Your task to perform on an android device: remove spam from my inbox in the gmail app Image 0: 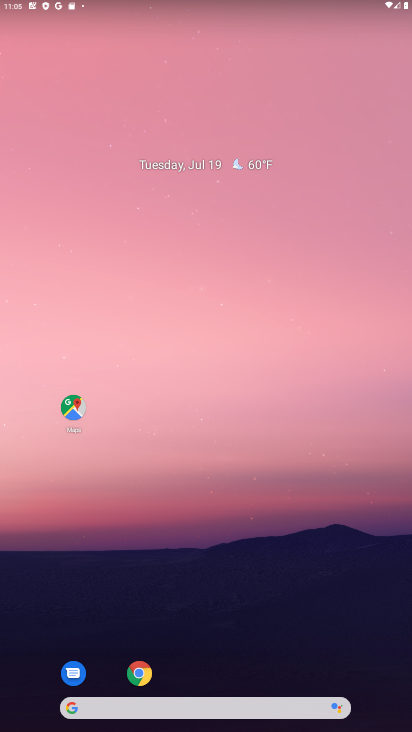
Step 0: drag from (386, 674) to (331, 126)
Your task to perform on an android device: remove spam from my inbox in the gmail app Image 1: 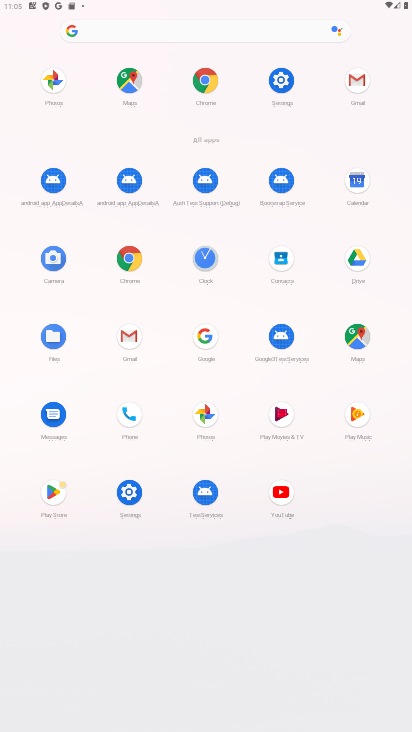
Step 1: click (129, 338)
Your task to perform on an android device: remove spam from my inbox in the gmail app Image 2: 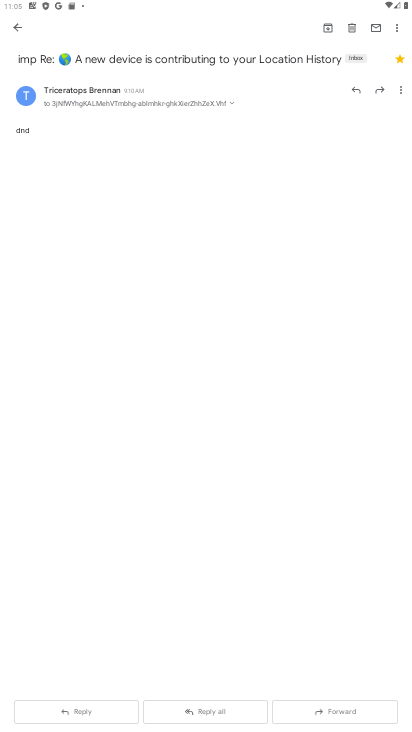
Step 2: press back button
Your task to perform on an android device: remove spam from my inbox in the gmail app Image 3: 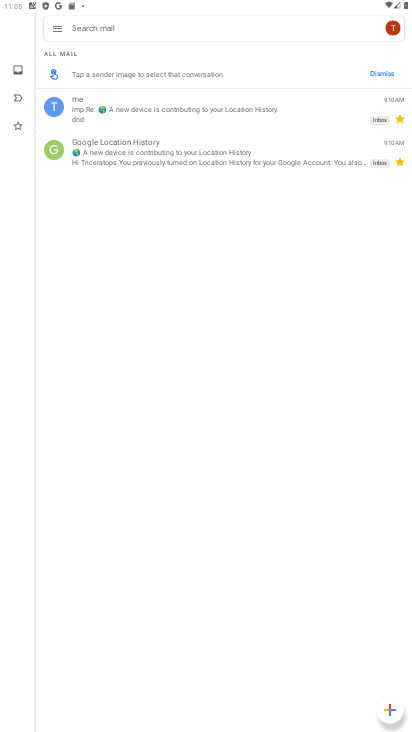
Step 3: click (53, 29)
Your task to perform on an android device: remove spam from my inbox in the gmail app Image 4: 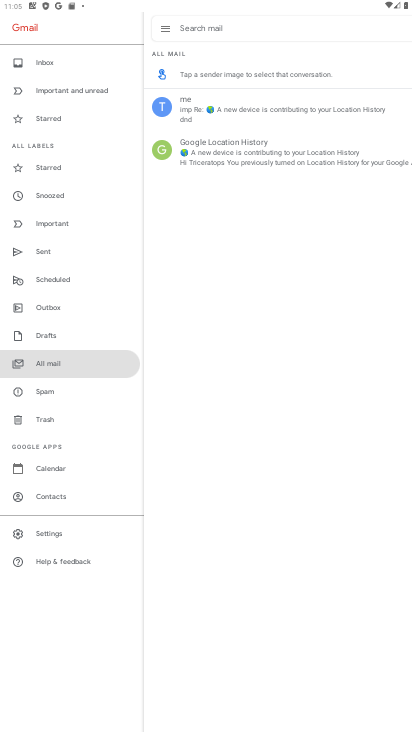
Step 4: click (40, 394)
Your task to perform on an android device: remove spam from my inbox in the gmail app Image 5: 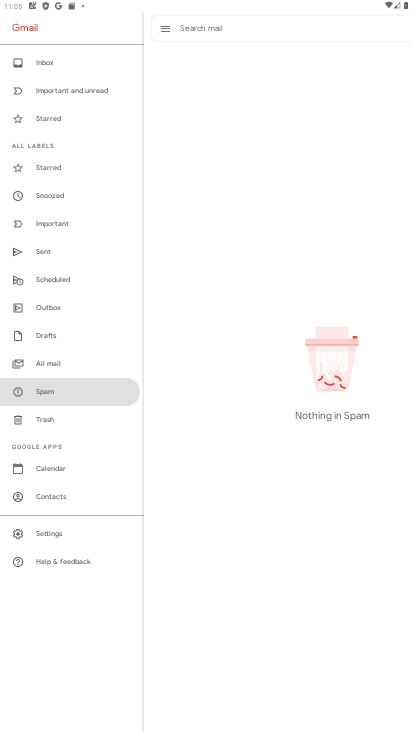
Step 5: task complete